Your task to perform on an android device: Search for the best lawnmowers on Lowes.com Image 0: 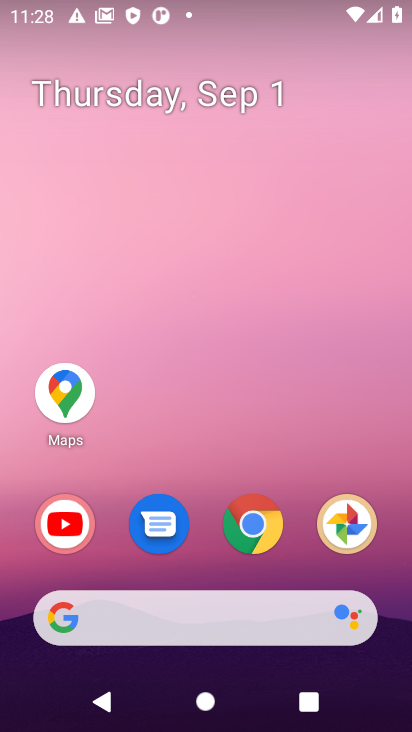
Step 0: click (249, 517)
Your task to perform on an android device: Search for the best lawnmowers on Lowes.com Image 1: 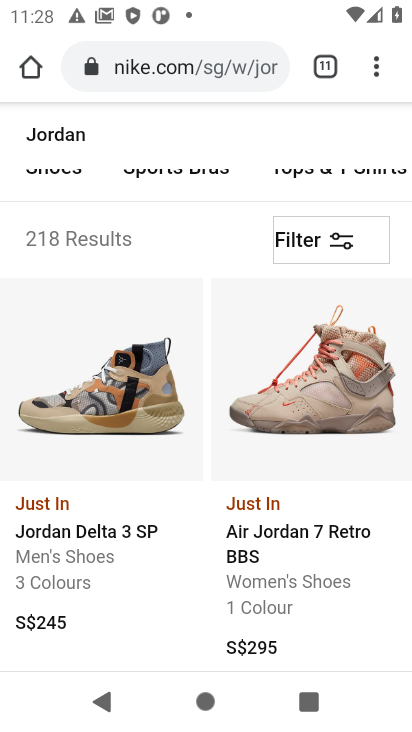
Step 1: click (326, 71)
Your task to perform on an android device: Search for the best lawnmowers on Lowes.com Image 2: 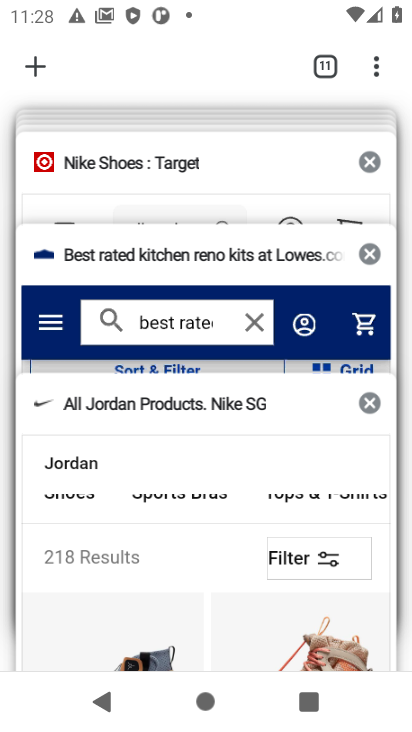
Step 2: click (235, 260)
Your task to perform on an android device: Search for the best lawnmowers on Lowes.com Image 3: 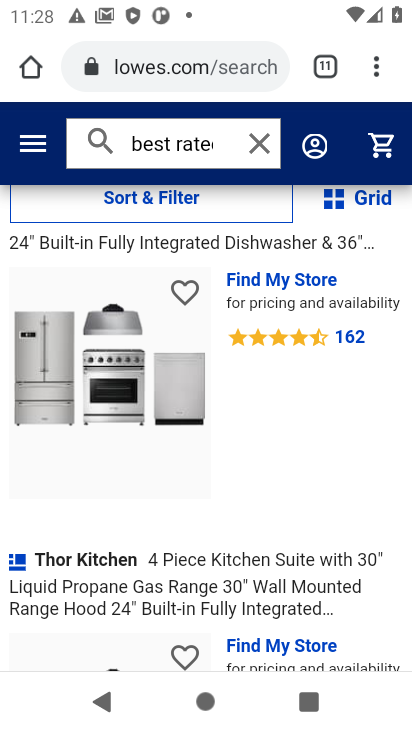
Step 3: click (173, 148)
Your task to perform on an android device: Search for the best lawnmowers on Lowes.com Image 4: 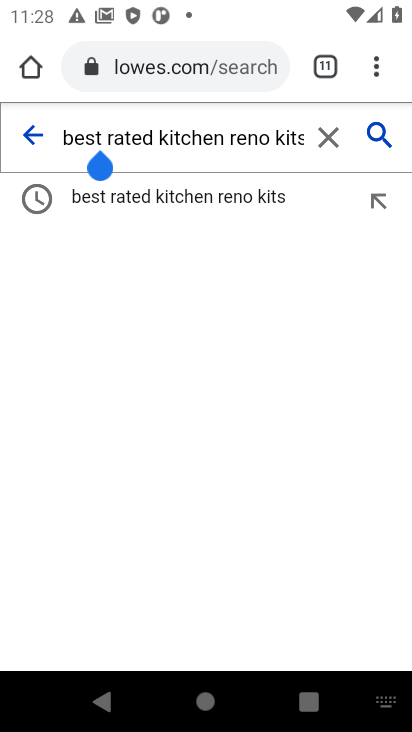
Step 4: click (326, 138)
Your task to perform on an android device: Search for the best lawnmowers on Lowes.com Image 5: 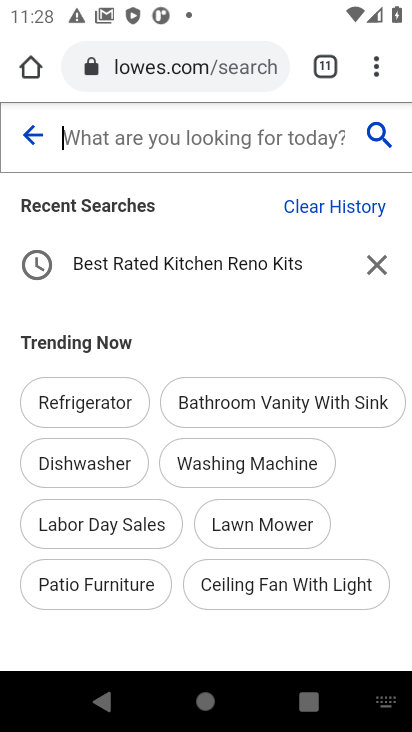
Step 5: type "best lawnmowers"
Your task to perform on an android device: Search for the best lawnmowers on Lowes.com Image 6: 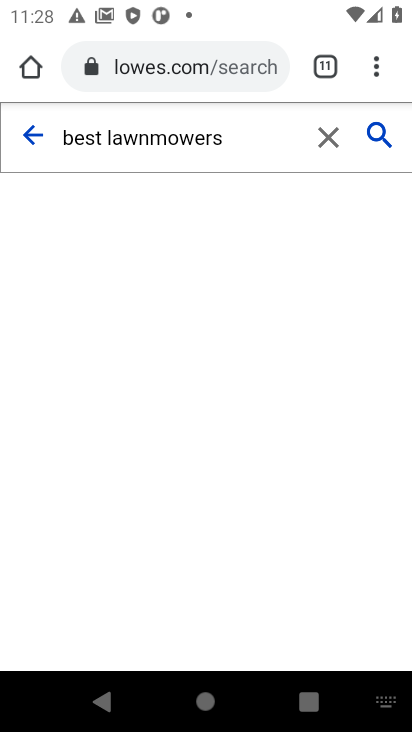
Step 6: click (377, 133)
Your task to perform on an android device: Search for the best lawnmowers on Lowes.com Image 7: 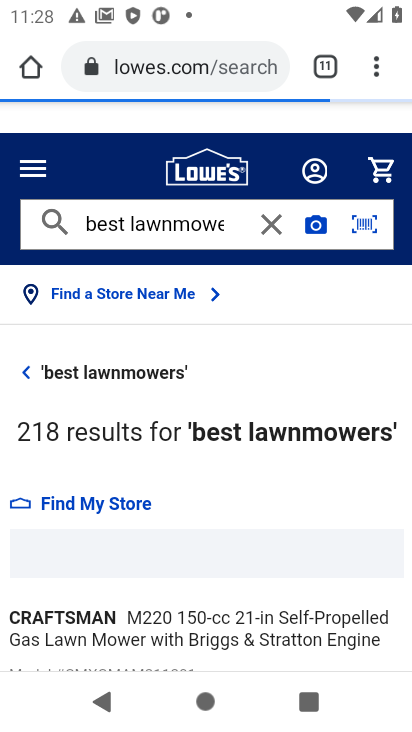
Step 7: task complete